Your task to perform on an android device: turn off sleep mode Image 0: 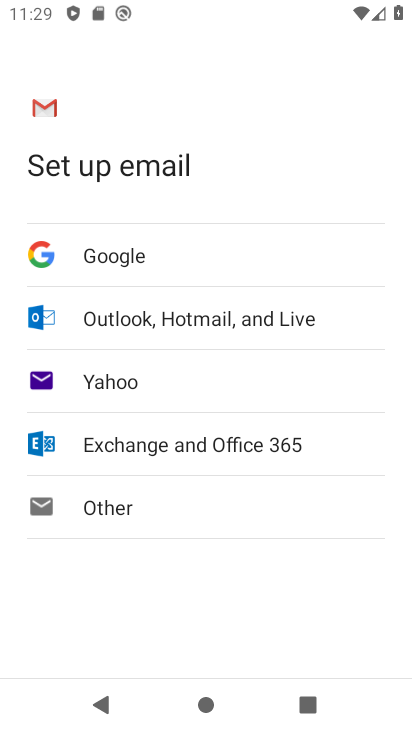
Step 0: press home button
Your task to perform on an android device: turn off sleep mode Image 1: 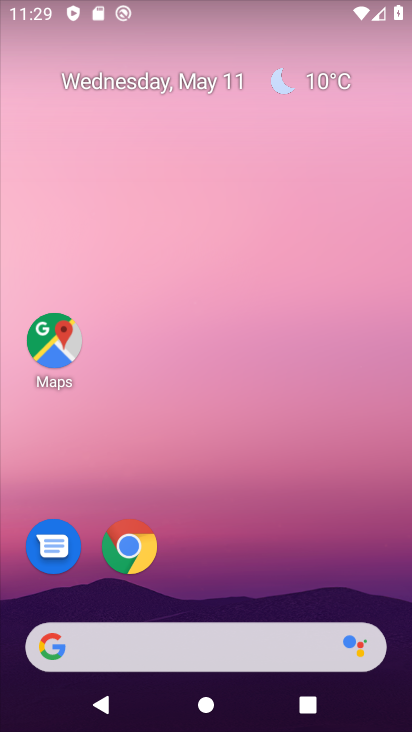
Step 1: drag from (246, 604) to (227, 50)
Your task to perform on an android device: turn off sleep mode Image 2: 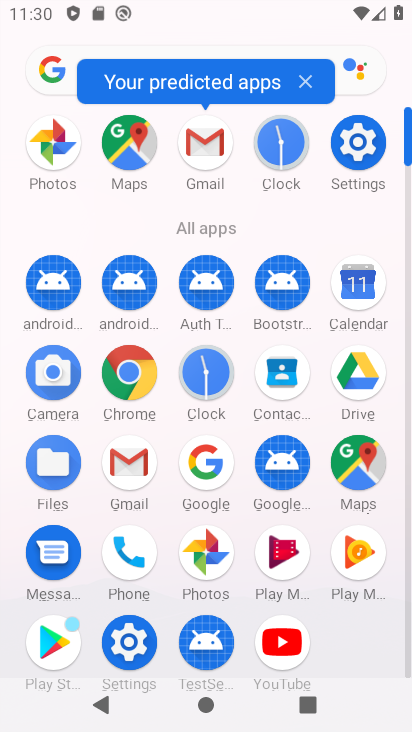
Step 2: click (355, 139)
Your task to perform on an android device: turn off sleep mode Image 3: 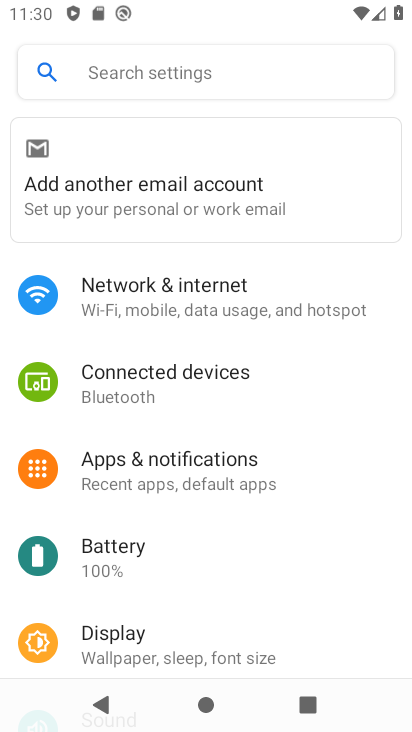
Step 3: click (165, 632)
Your task to perform on an android device: turn off sleep mode Image 4: 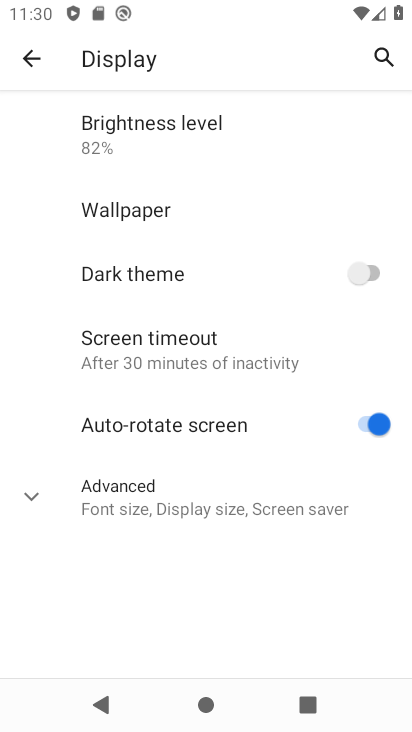
Step 4: click (201, 491)
Your task to perform on an android device: turn off sleep mode Image 5: 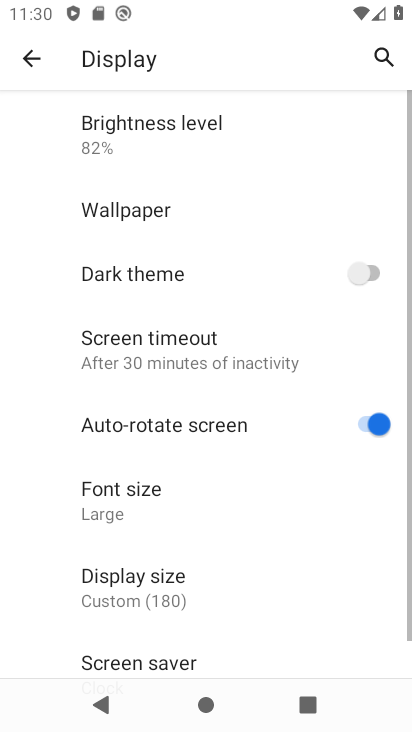
Step 5: drag from (243, 576) to (260, 162)
Your task to perform on an android device: turn off sleep mode Image 6: 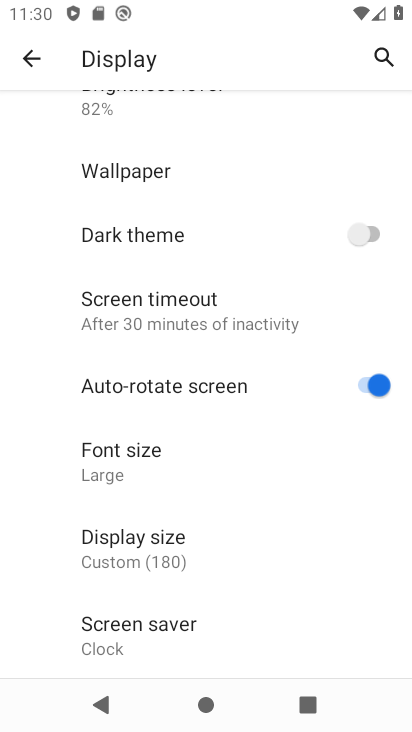
Step 6: click (26, 69)
Your task to perform on an android device: turn off sleep mode Image 7: 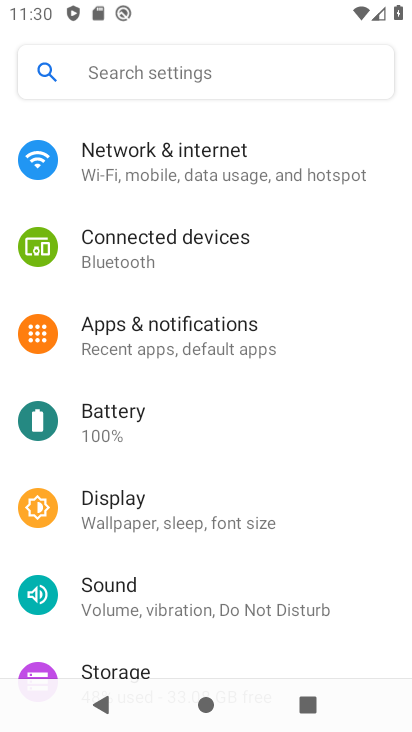
Step 7: task complete